Your task to perform on an android device: change the clock style Image 0: 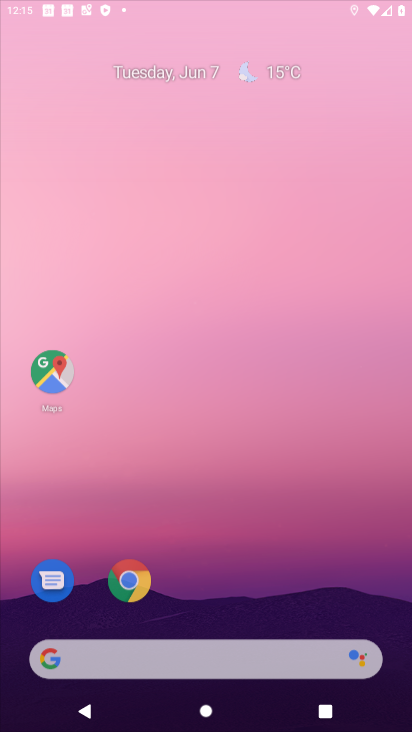
Step 0: click (32, 45)
Your task to perform on an android device: change the clock style Image 1: 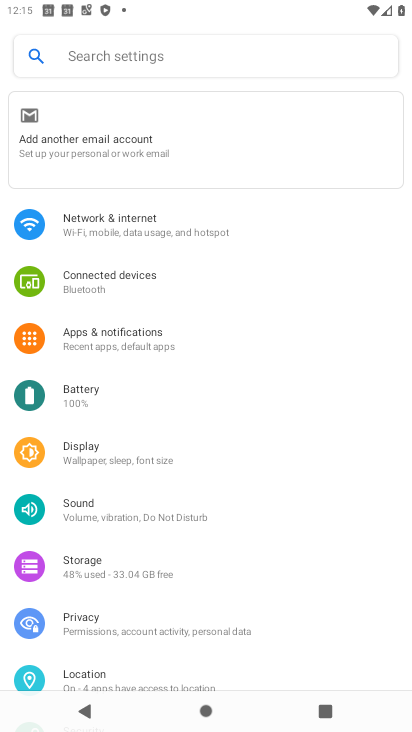
Step 1: press home button
Your task to perform on an android device: change the clock style Image 2: 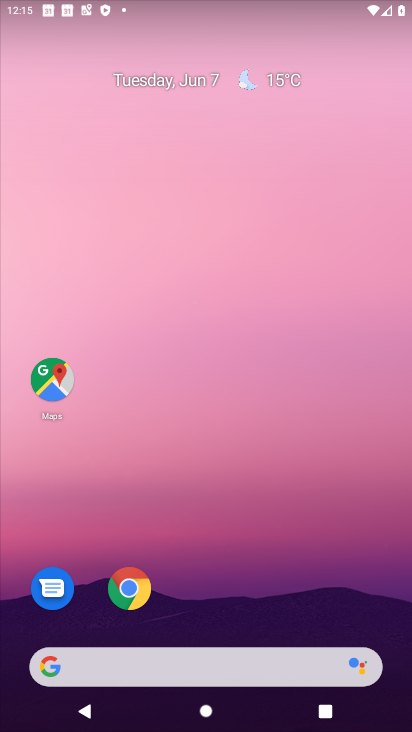
Step 2: drag from (220, 613) to (249, 360)
Your task to perform on an android device: change the clock style Image 3: 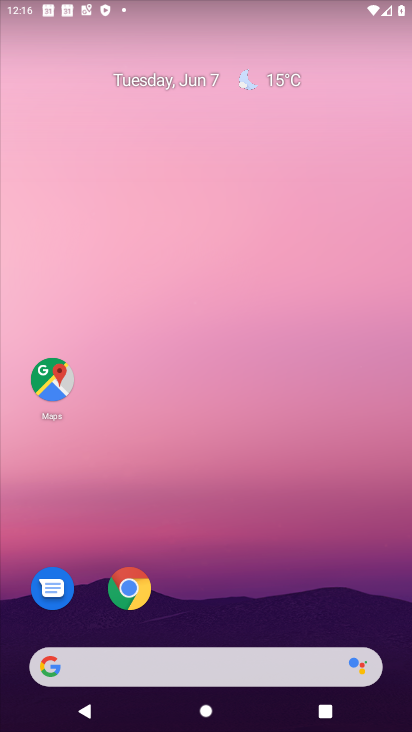
Step 3: drag from (243, 590) to (255, 343)
Your task to perform on an android device: change the clock style Image 4: 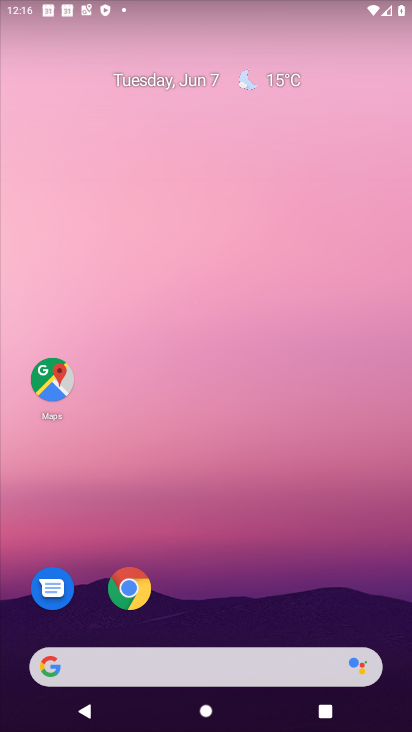
Step 4: drag from (262, 639) to (263, 325)
Your task to perform on an android device: change the clock style Image 5: 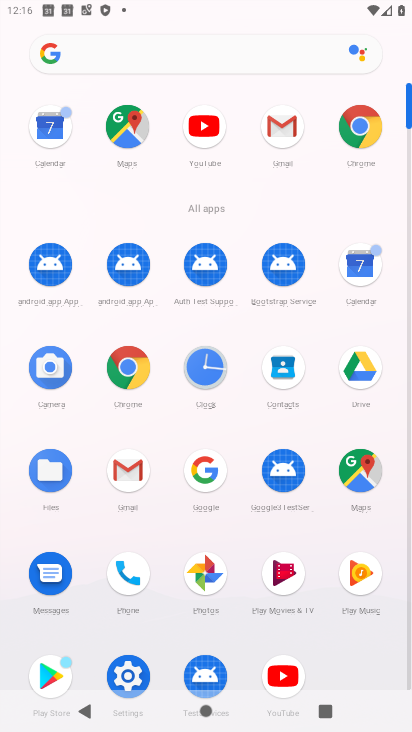
Step 5: click (212, 368)
Your task to perform on an android device: change the clock style Image 6: 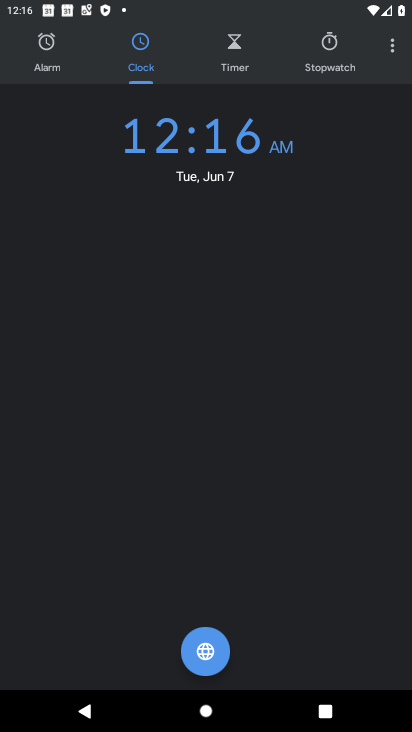
Step 6: click (390, 52)
Your task to perform on an android device: change the clock style Image 7: 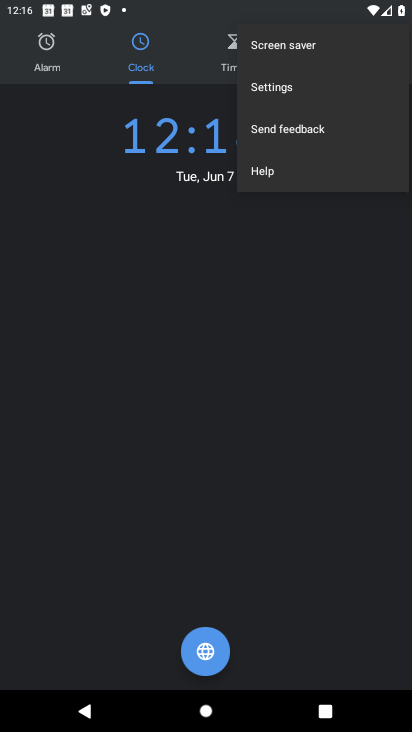
Step 7: click (338, 84)
Your task to perform on an android device: change the clock style Image 8: 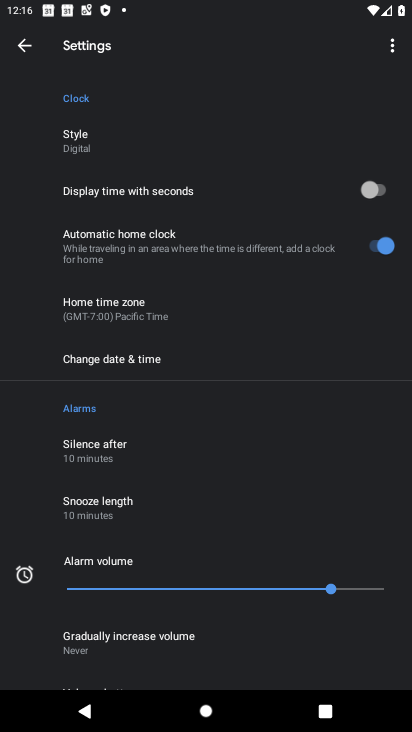
Step 8: click (103, 149)
Your task to perform on an android device: change the clock style Image 9: 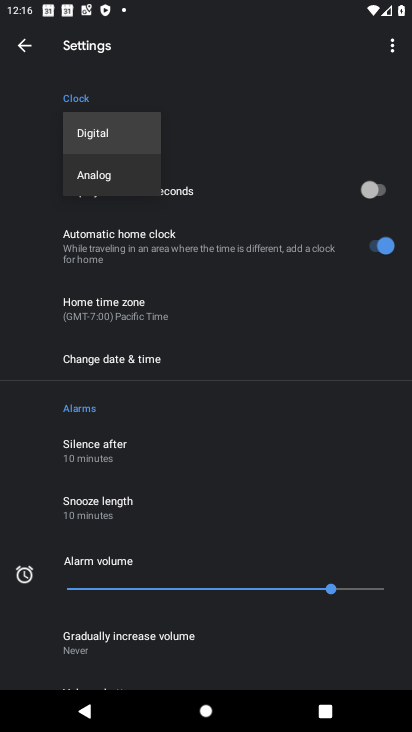
Step 9: click (112, 173)
Your task to perform on an android device: change the clock style Image 10: 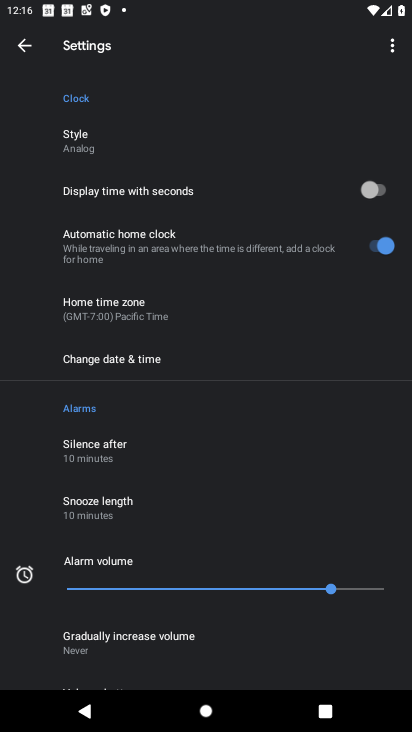
Step 10: task complete